Your task to perform on an android device: refresh tabs in the chrome app Image 0: 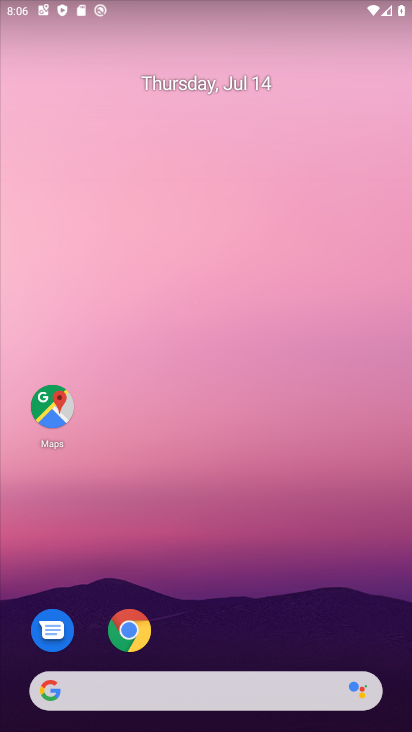
Step 0: click (124, 635)
Your task to perform on an android device: refresh tabs in the chrome app Image 1: 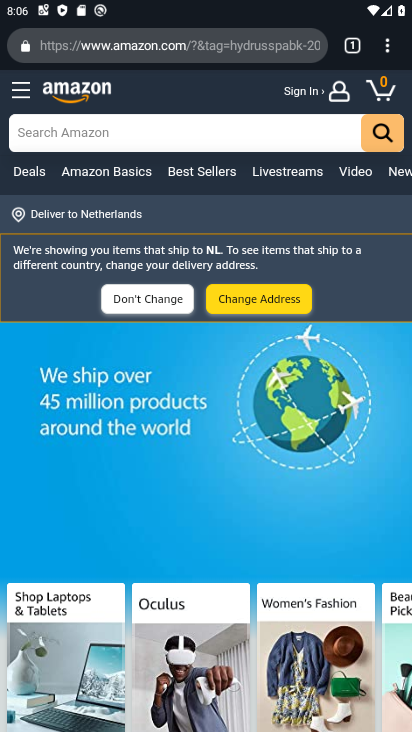
Step 1: click (391, 49)
Your task to perform on an android device: refresh tabs in the chrome app Image 2: 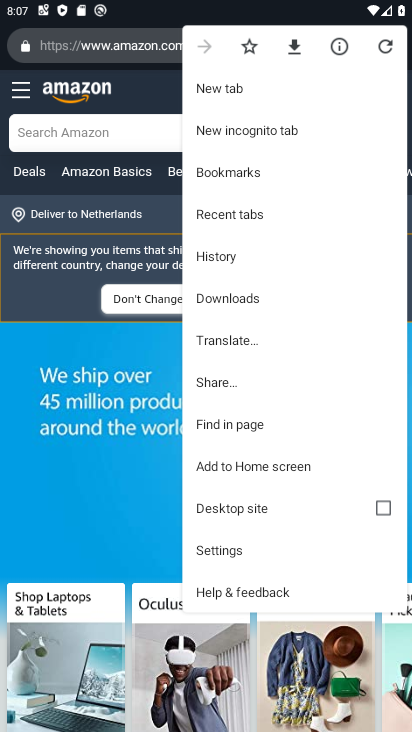
Step 2: click (389, 51)
Your task to perform on an android device: refresh tabs in the chrome app Image 3: 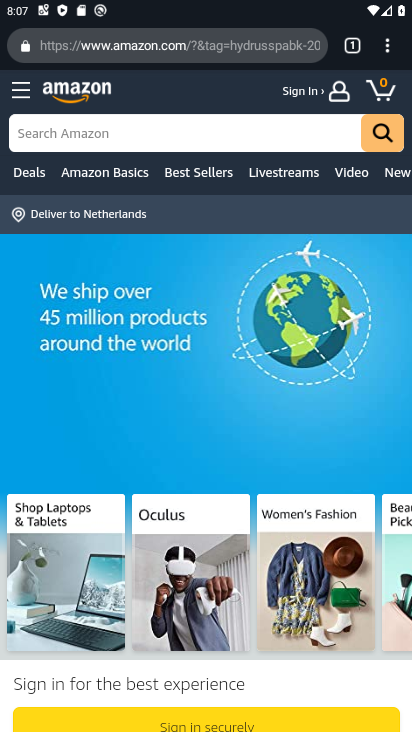
Step 3: task complete